Your task to perform on an android device: open sync settings in chrome Image 0: 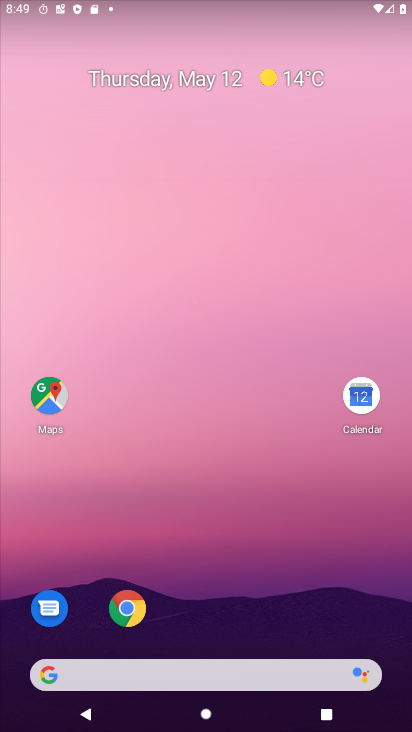
Step 0: click (140, 620)
Your task to perform on an android device: open sync settings in chrome Image 1: 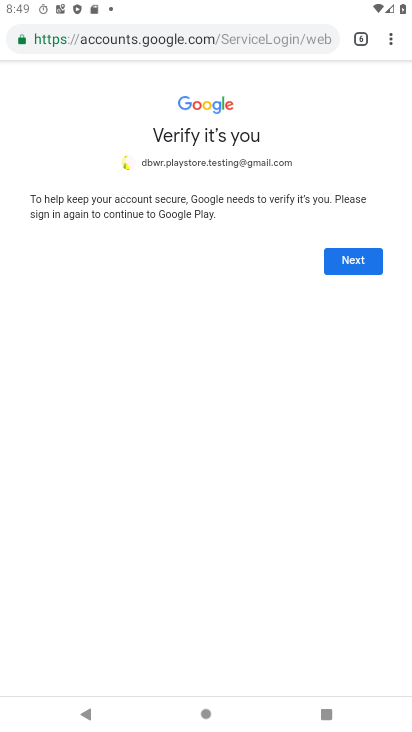
Step 1: click (394, 32)
Your task to perform on an android device: open sync settings in chrome Image 2: 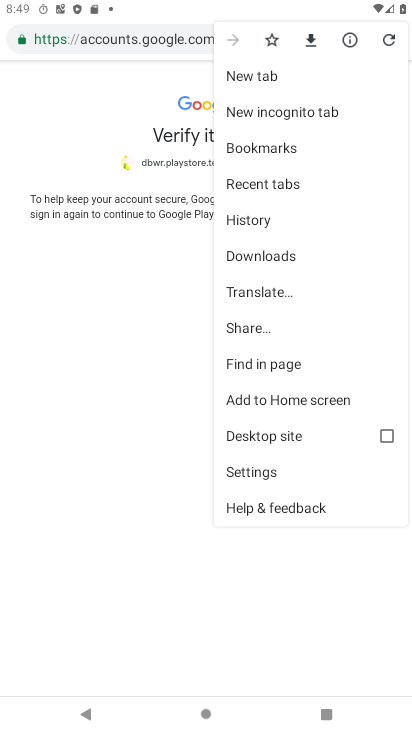
Step 2: click (299, 477)
Your task to perform on an android device: open sync settings in chrome Image 3: 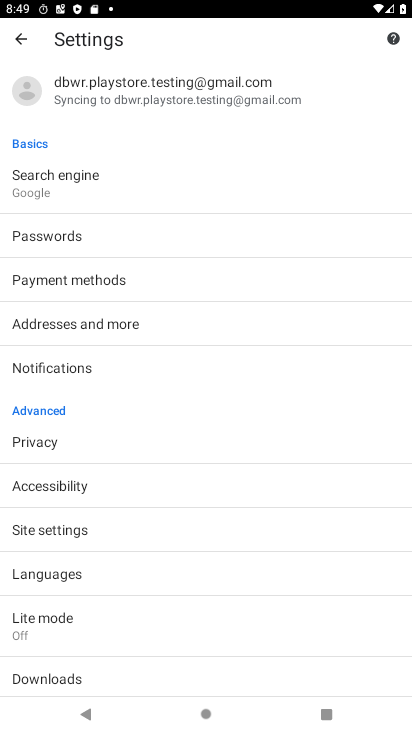
Step 3: drag from (151, 568) to (172, 202)
Your task to perform on an android device: open sync settings in chrome Image 4: 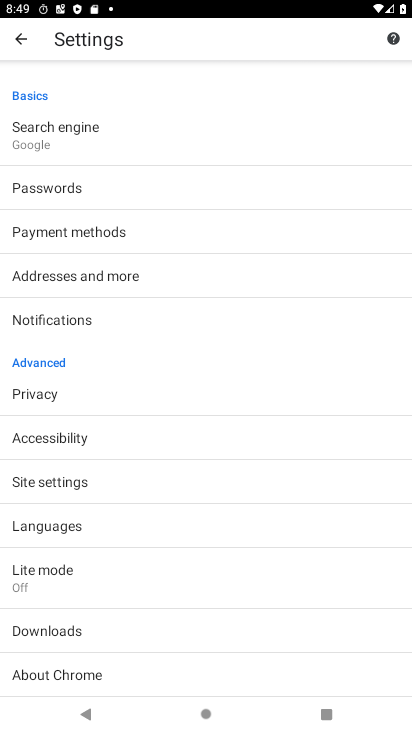
Step 4: click (152, 484)
Your task to perform on an android device: open sync settings in chrome Image 5: 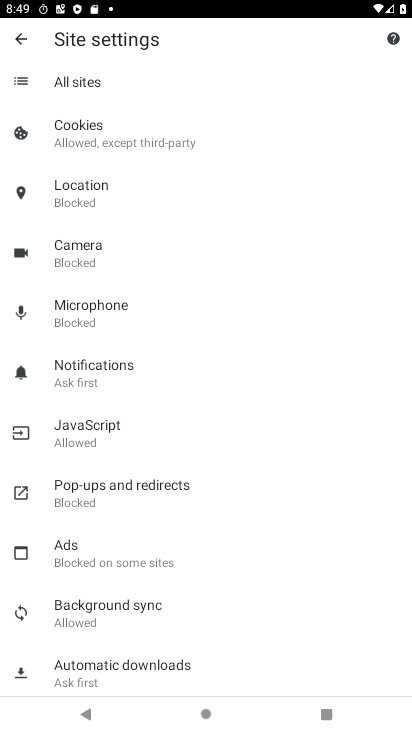
Step 5: task complete